Your task to perform on an android device: Open calendar and show me the fourth week of next month Image 0: 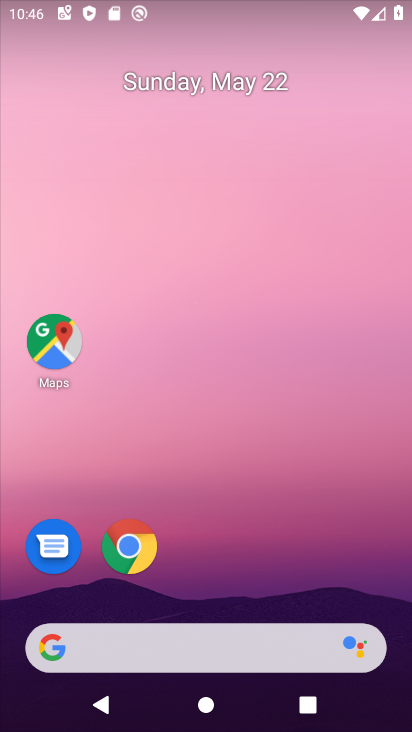
Step 0: drag from (223, 587) to (257, 36)
Your task to perform on an android device: Open calendar and show me the fourth week of next month Image 1: 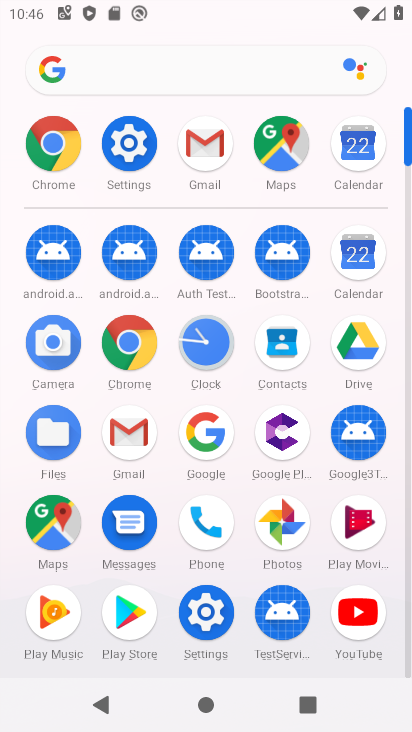
Step 1: click (348, 251)
Your task to perform on an android device: Open calendar and show me the fourth week of next month Image 2: 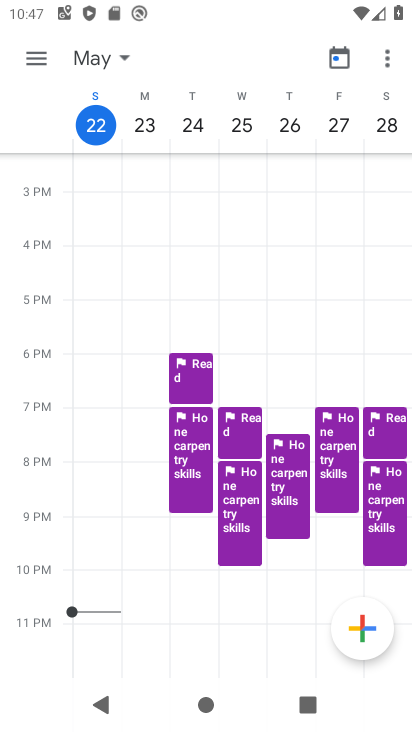
Step 2: task complete